Your task to perform on an android device: change timer sound Image 0: 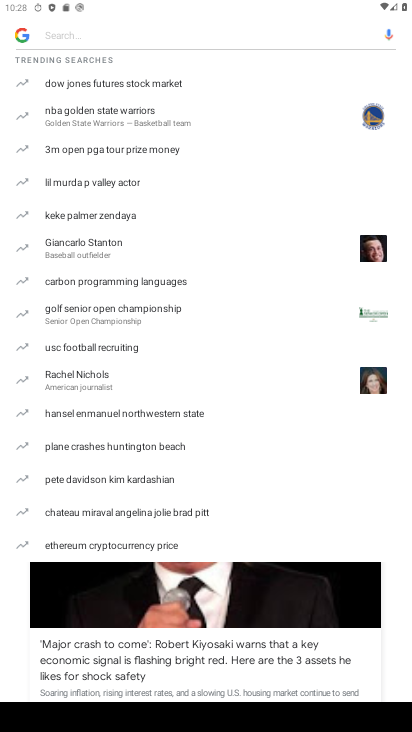
Step 0: press home button
Your task to perform on an android device: change timer sound Image 1: 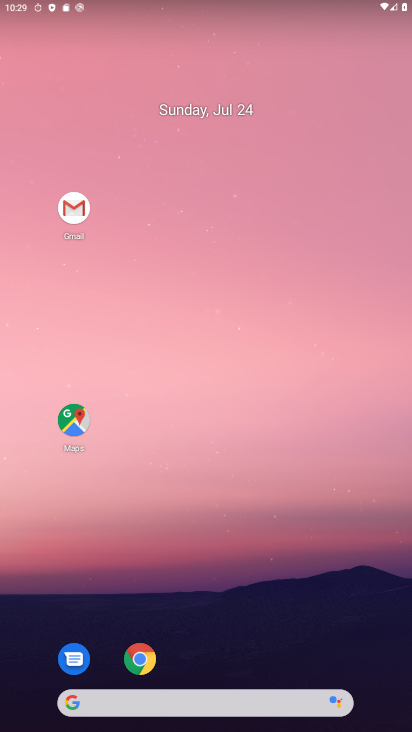
Step 1: drag from (268, 552) to (354, 138)
Your task to perform on an android device: change timer sound Image 2: 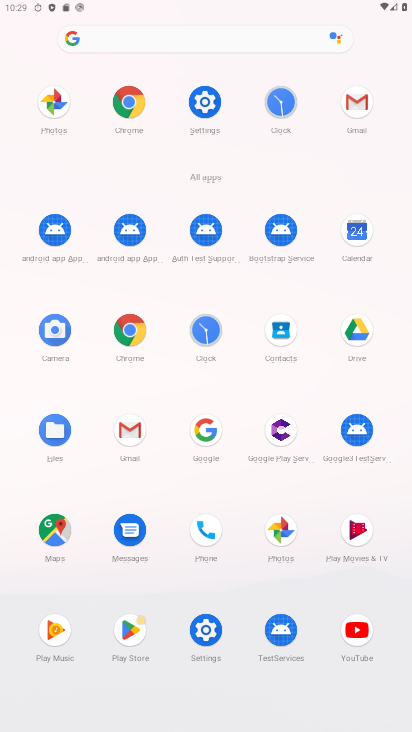
Step 2: drag from (280, 110) to (151, 187)
Your task to perform on an android device: change timer sound Image 3: 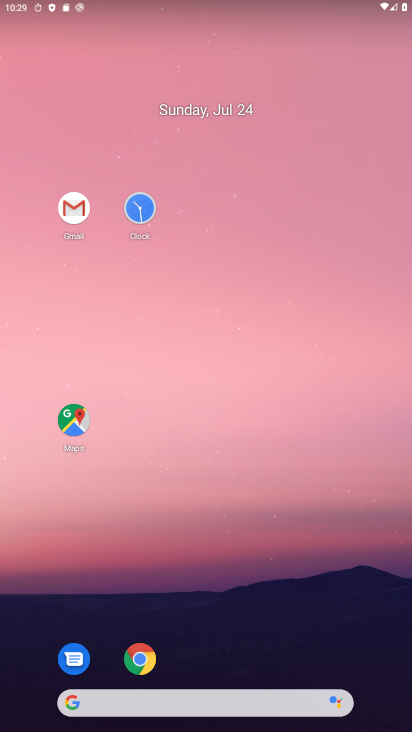
Step 3: click (148, 206)
Your task to perform on an android device: change timer sound Image 4: 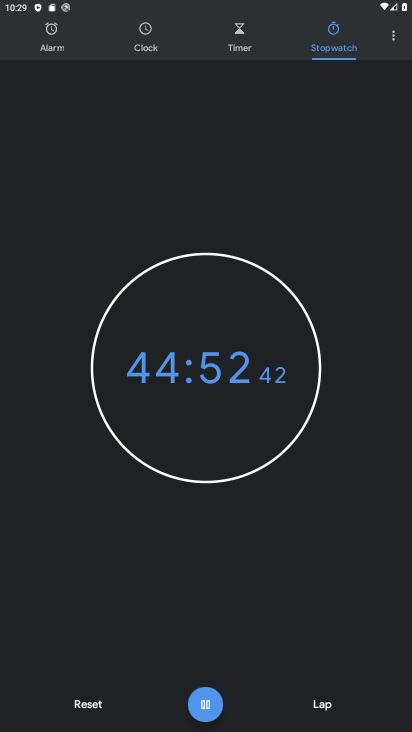
Step 4: click (391, 38)
Your task to perform on an android device: change timer sound Image 5: 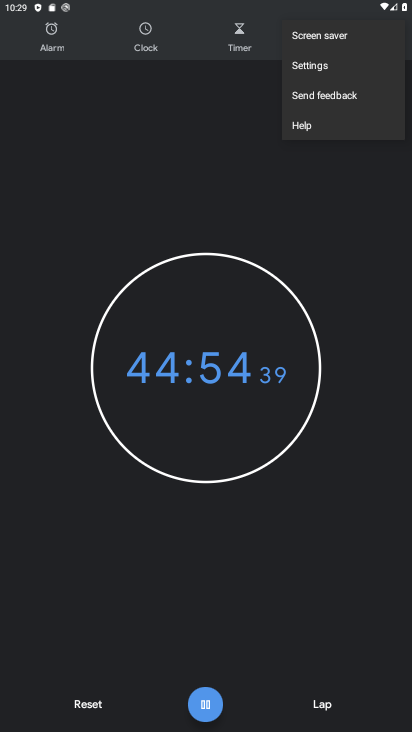
Step 5: click (341, 70)
Your task to perform on an android device: change timer sound Image 6: 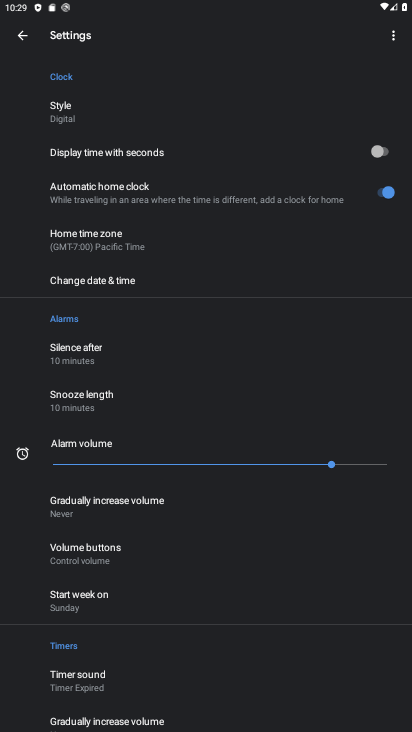
Step 6: drag from (181, 594) to (207, 319)
Your task to perform on an android device: change timer sound Image 7: 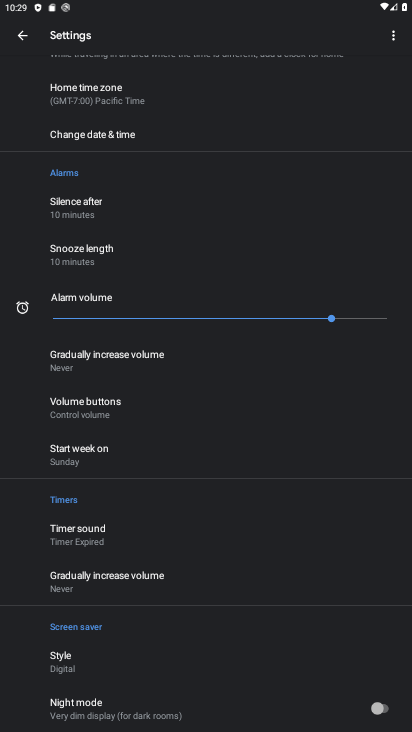
Step 7: click (164, 539)
Your task to perform on an android device: change timer sound Image 8: 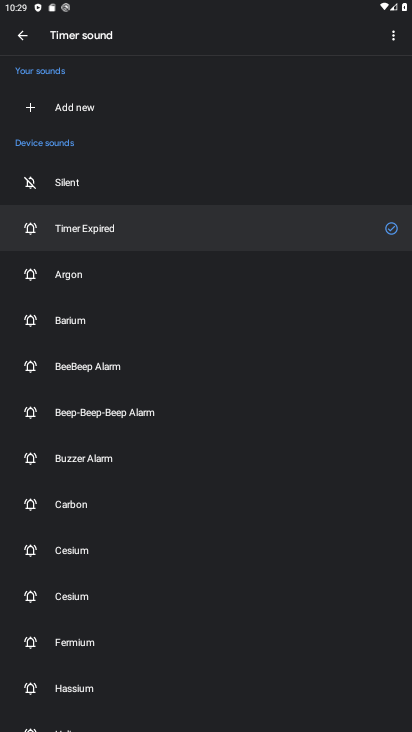
Step 8: click (59, 290)
Your task to perform on an android device: change timer sound Image 9: 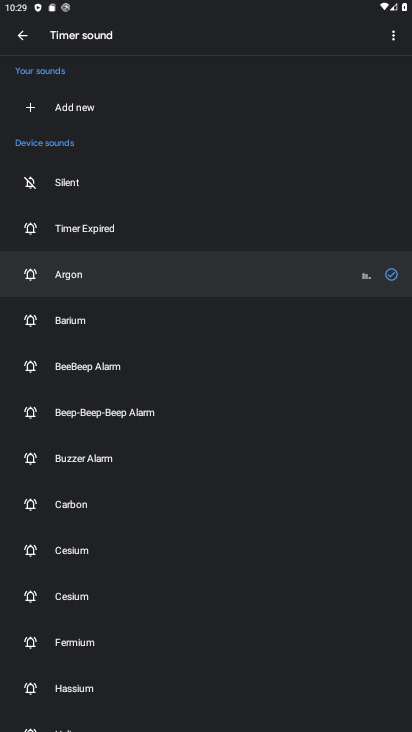
Step 9: task complete